Your task to perform on an android device: turn off picture-in-picture Image 0: 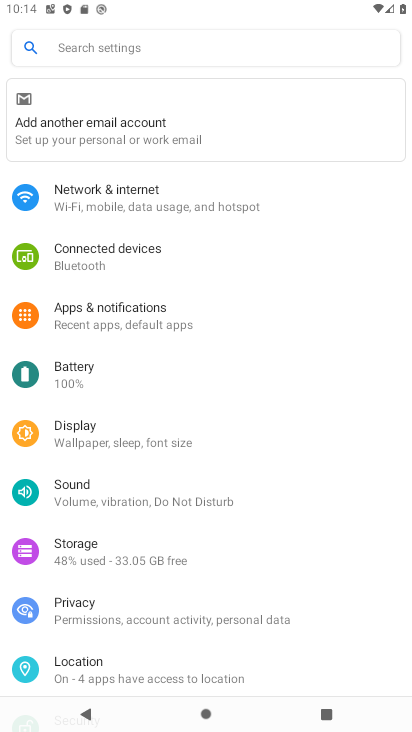
Step 0: press home button
Your task to perform on an android device: turn off picture-in-picture Image 1: 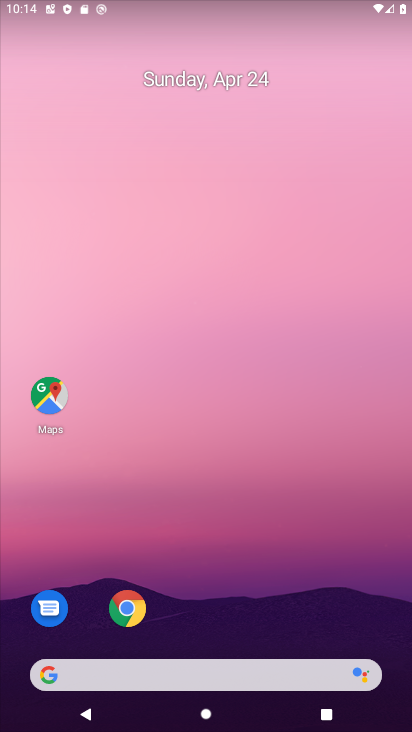
Step 1: click (128, 607)
Your task to perform on an android device: turn off picture-in-picture Image 2: 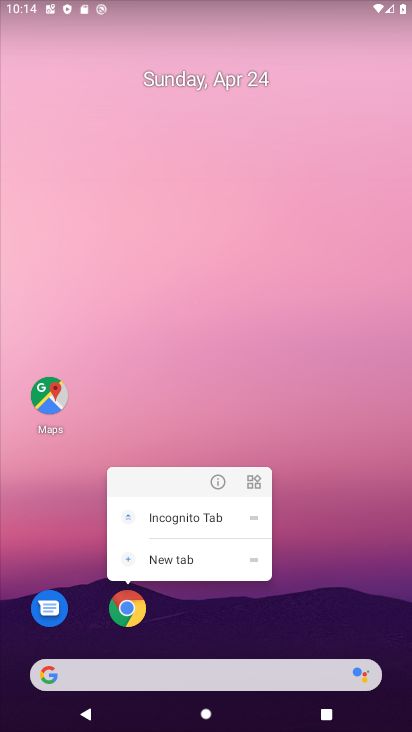
Step 2: click (222, 483)
Your task to perform on an android device: turn off picture-in-picture Image 3: 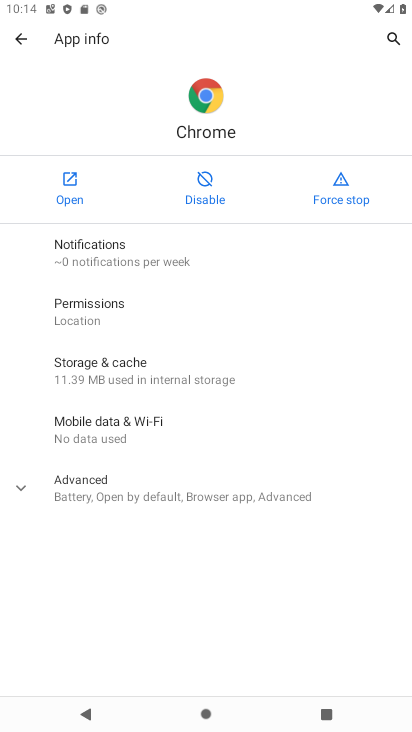
Step 3: click (166, 506)
Your task to perform on an android device: turn off picture-in-picture Image 4: 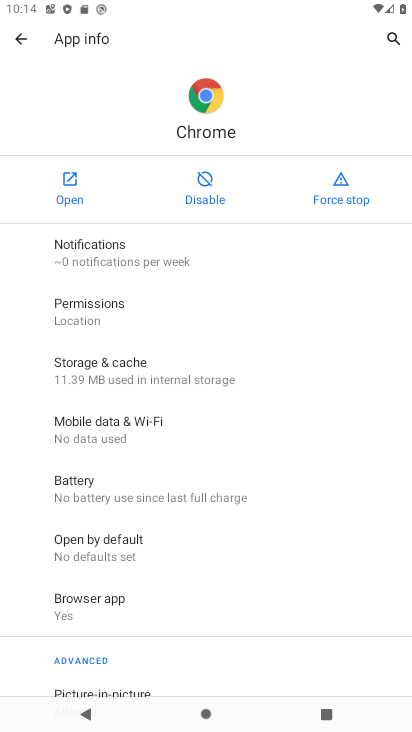
Step 4: drag from (213, 567) to (307, 127)
Your task to perform on an android device: turn off picture-in-picture Image 5: 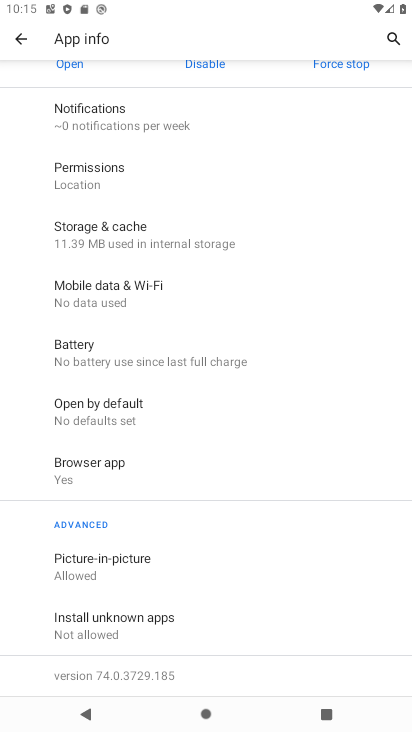
Step 5: drag from (172, 562) to (311, 160)
Your task to perform on an android device: turn off picture-in-picture Image 6: 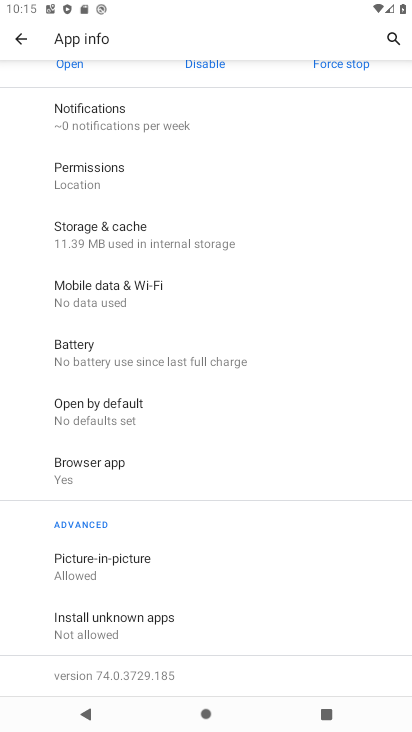
Step 6: drag from (194, 556) to (293, 376)
Your task to perform on an android device: turn off picture-in-picture Image 7: 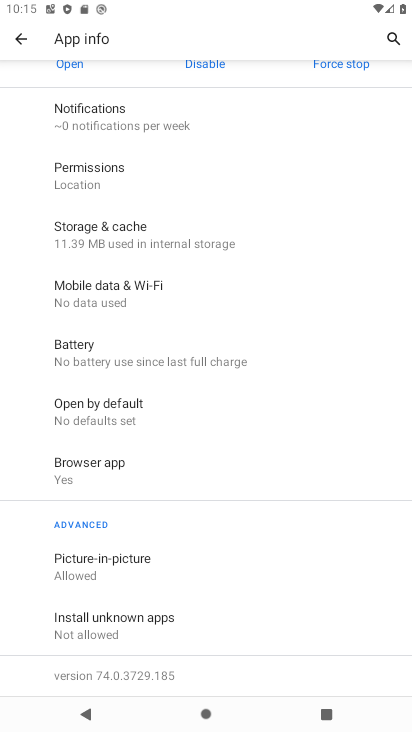
Step 7: click (115, 561)
Your task to perform on an android device: turn off picture-in-picture Image 8: 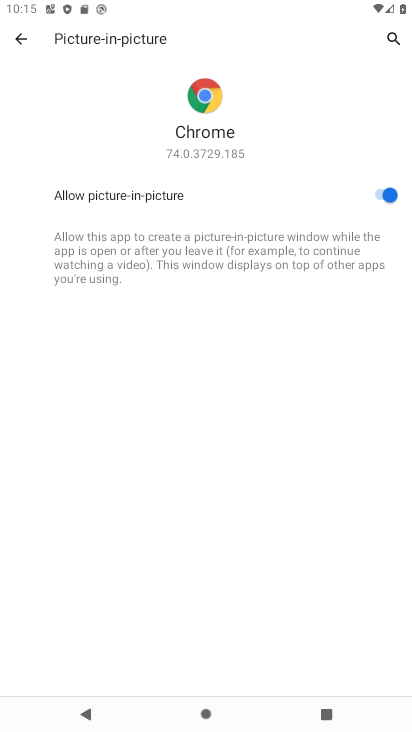
Step 8: click (382, 197)
Your task to perform on an android device: turn off picture-in-picture Image 9: 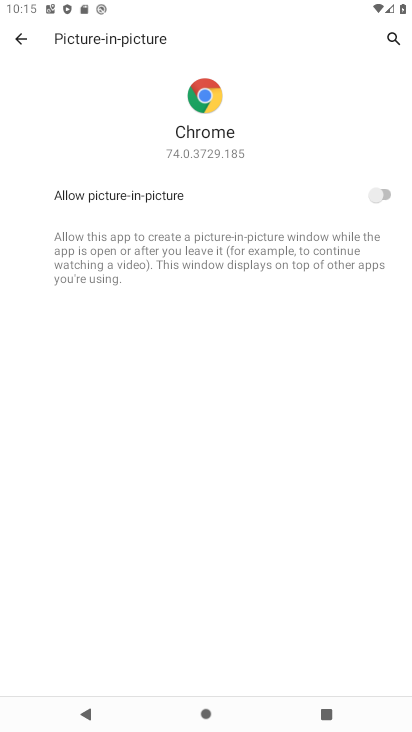
Step 9: task complete